Your task to perform on an android device: Go to eBay Image 0: 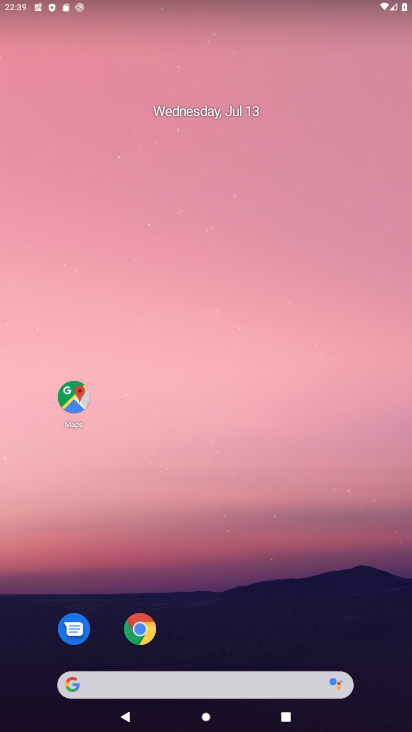
Step 0: click (141, 626)
Your task to perform on an android device: Go to eBay Image 1: 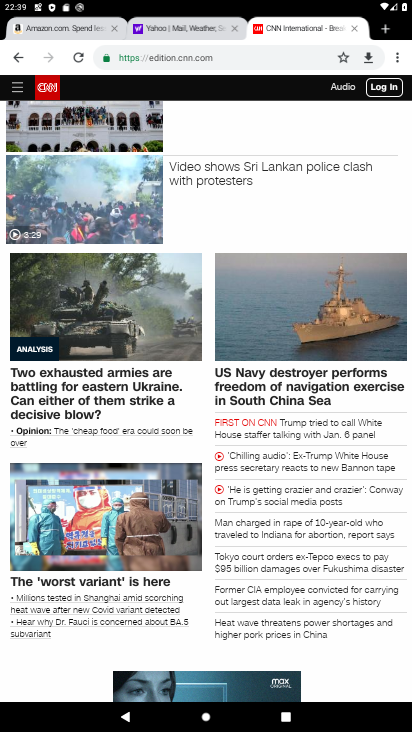
Step 1: click (385, 23)
Your task to perform on an android device: Go to eBay Image 2: 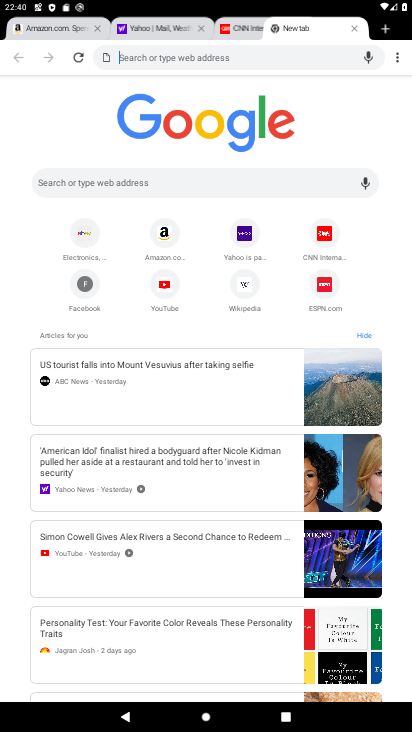
Step 2: click (83, 233)
Your task to perform on an android device: Go to eBay Image 3: 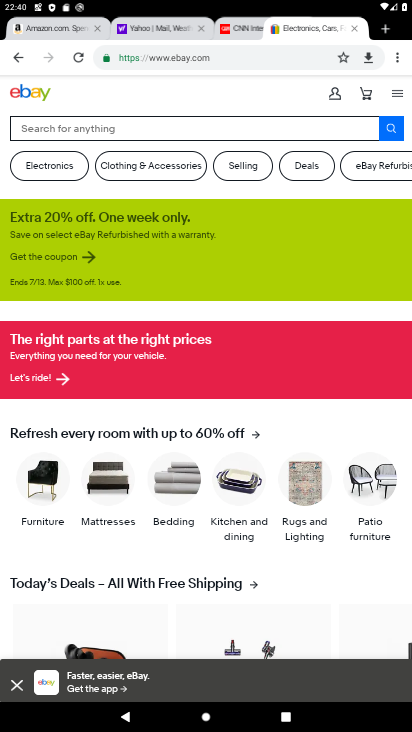
Step 3: task complete